Your task to perform on an android device: turn on improve location accuracy Image 0: 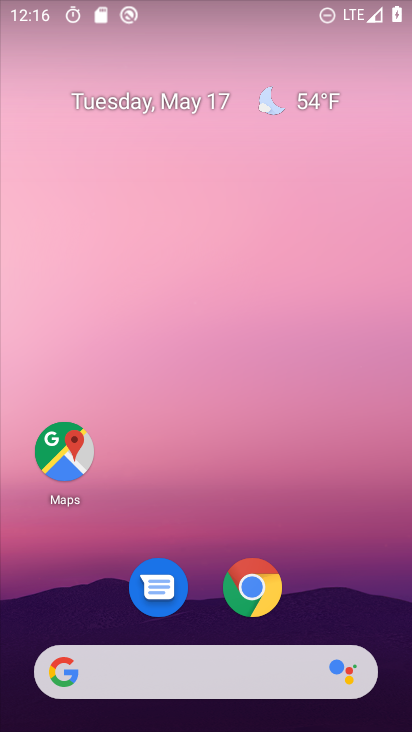
Step 0: drag from (215, 615) to (273, 100)
Your task to perform on an android device: turn on improve location accuracy Image 1: 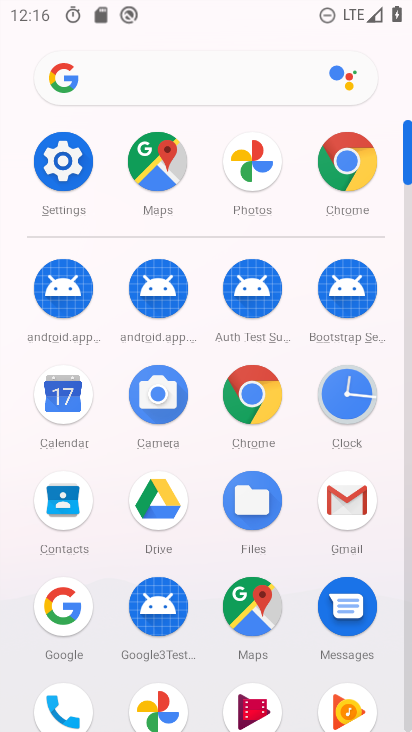
Step 1: click (61, 145)
Your task to perform on an android device: turn on improve location accuracy Image 2: 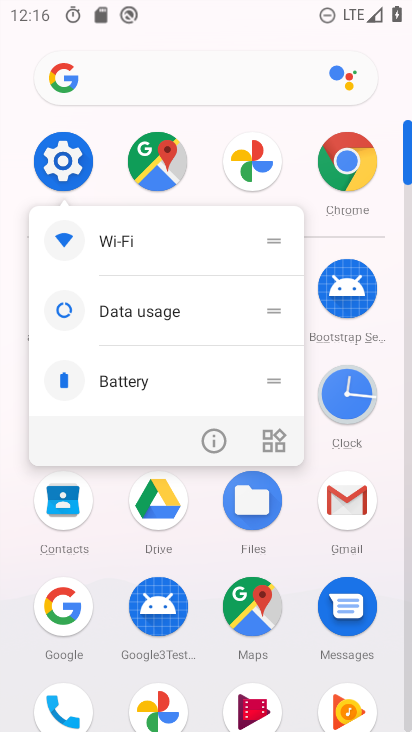
Step 2: click (216, 443)
Your task to perform on an android device: turn on improve location accuracy Image 3: 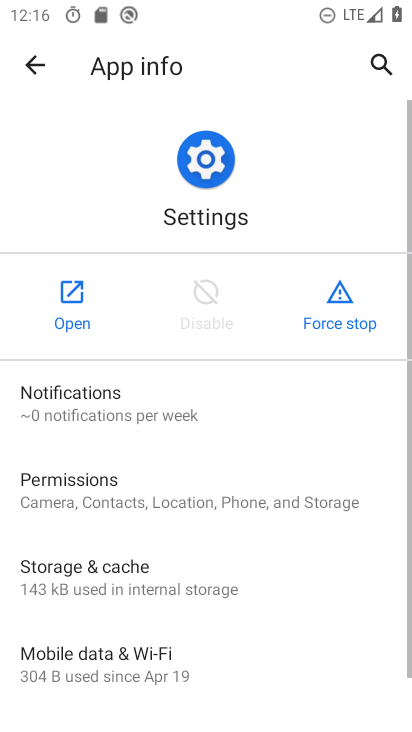
Step 3: click (77, 253)
Your task to perform on an android device: turn on improve location accuracy Image 4: 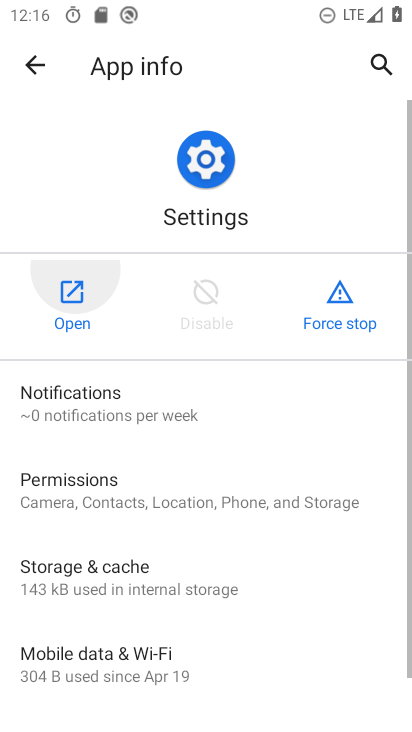
Step 4: click (79, 267)
Your task to perform on an android device: turn on improve location accuracy Image 5: 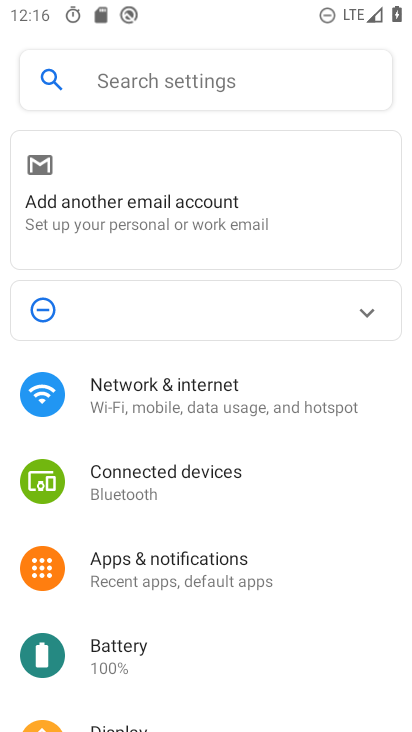
Step 5: drag from (210, 615) to (248, 118)
Your task to perform on an android device: turn on improve location accuracy Image 6: 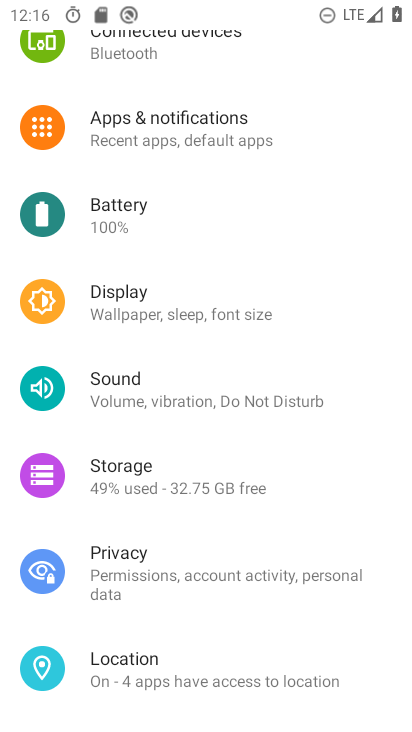
Step 6: click (123, 670)
Your task to perform on an android device: turn on improve location accuracy Image 7: 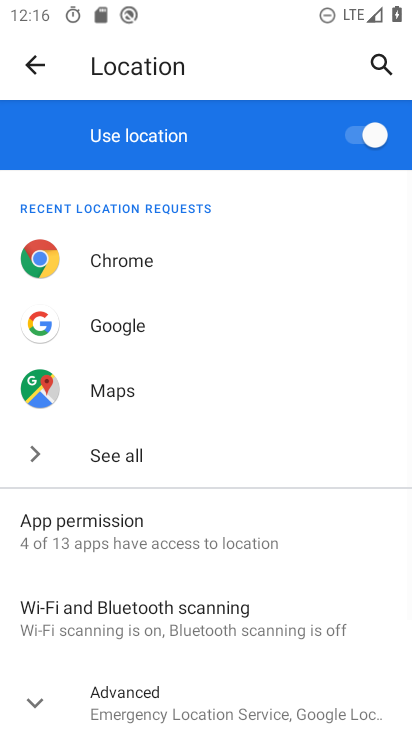
Step 7: drag from (205, 639) to (317, 97)
Your task to perform on an android device: turn on improve location accuracy Image 8: 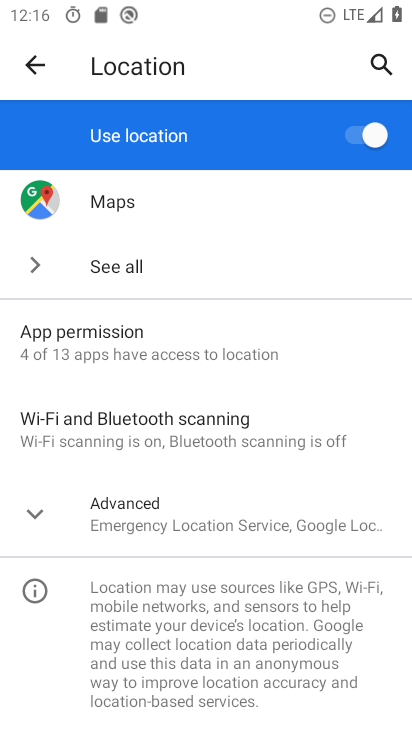
Step 8: click (152, 515)
Your task to perform on an android device: turn on improve location accuracy Image 9: 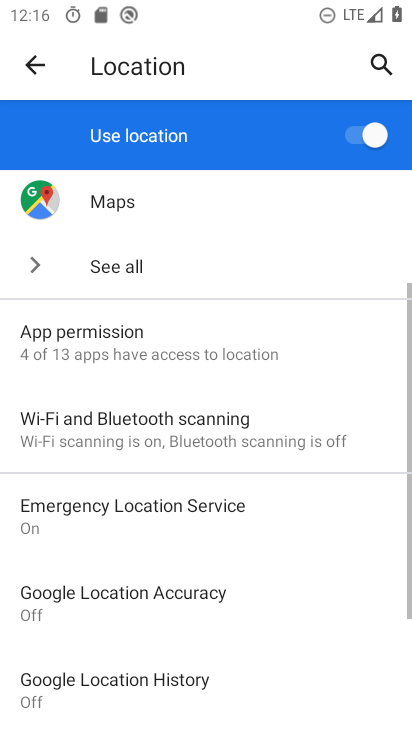
Step 9: drag from (188, 512) to (331, 105)
Your task to perform on an android device: turn on improve location accuracy Image 10: 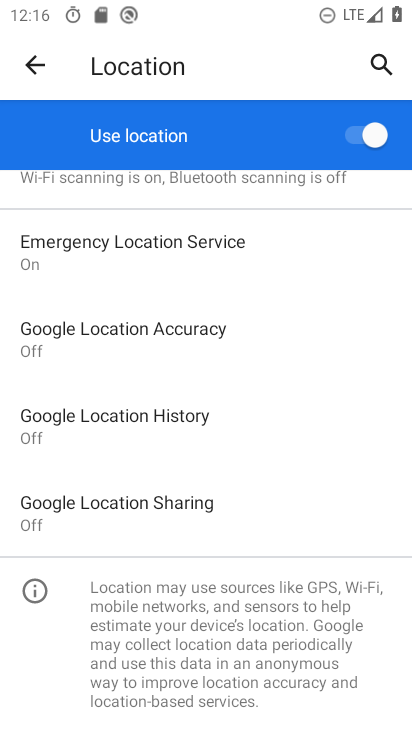
Step 10: click (139, 347)
Your task to perform on an android device: turn on improve location accuracy Image 11: 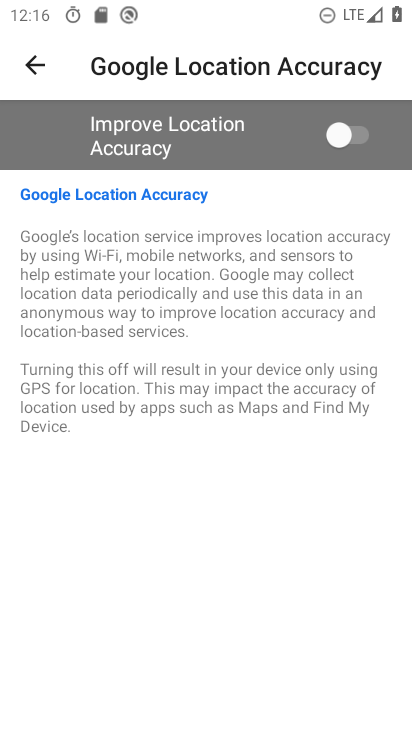
Step 11: click (358, 118)
Your task to perform on an android device: turn on improve location accuracy Image 12: 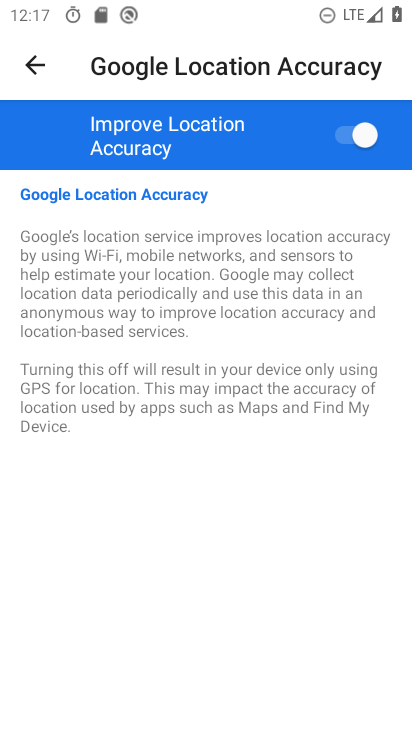
Step 12: task complete